Your task to perform on an android device: open sync settings in chrome Image 0: 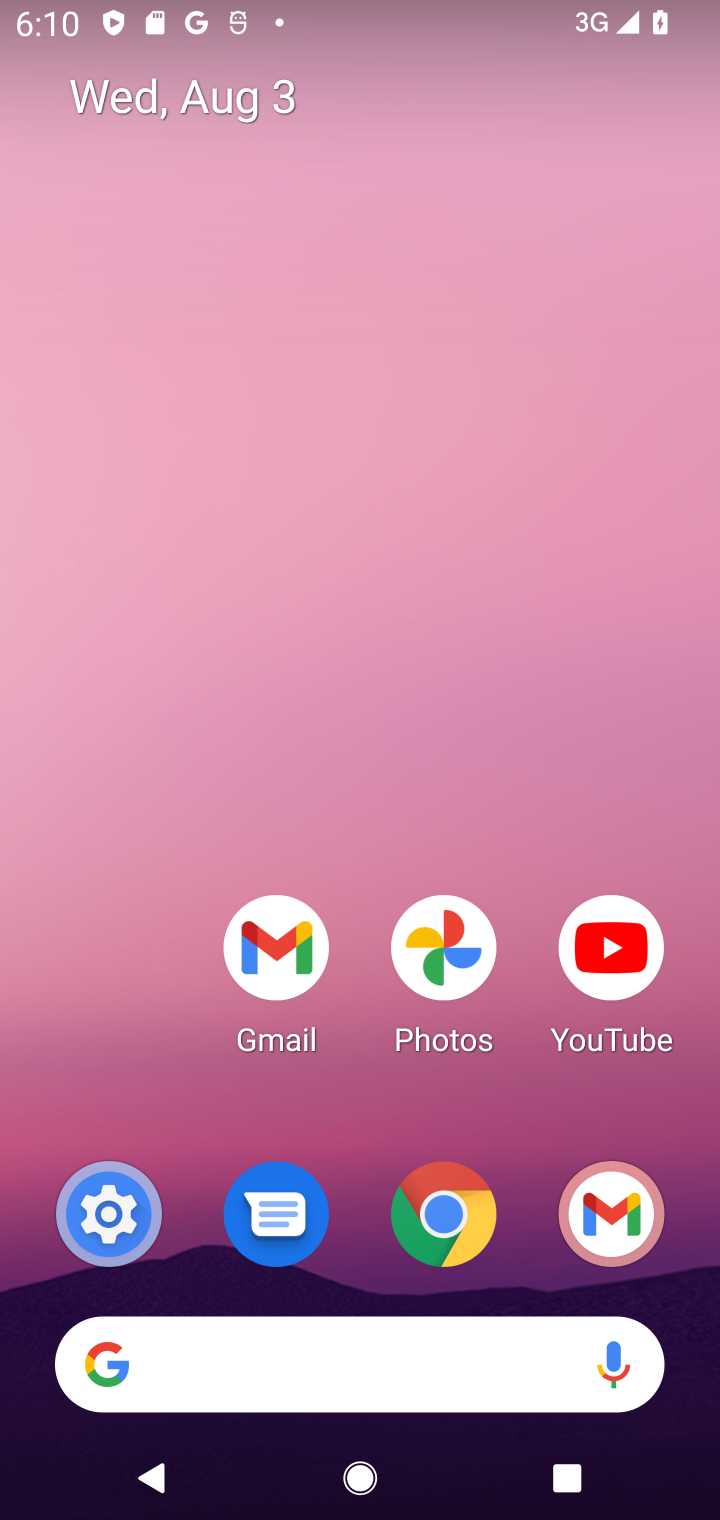
Step 0: click (439, 1221)
Your task to perform on an android device: open sync settings in chrome Image 1: 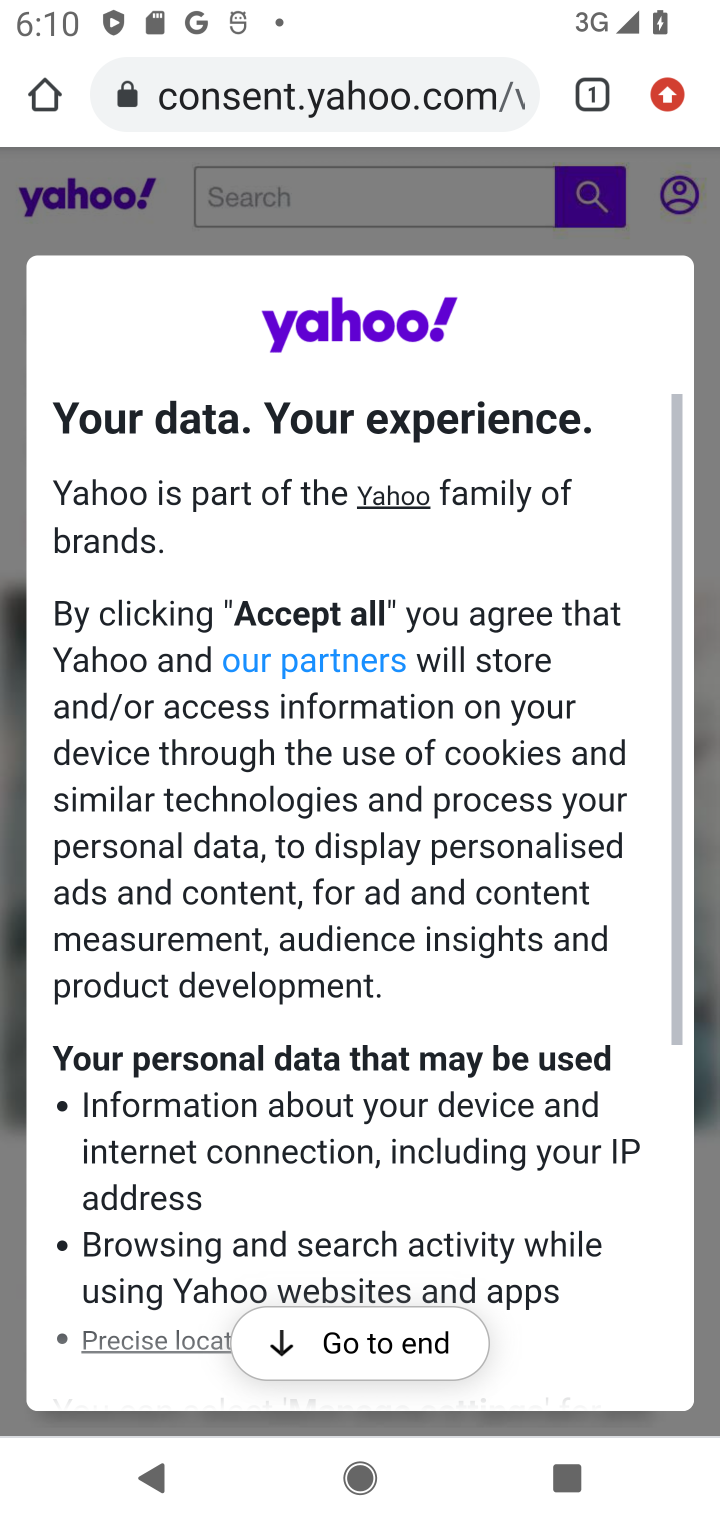
Step 1: click (667, 96)
Your task to perform on an android device: open sync settings in chrome Image 2: 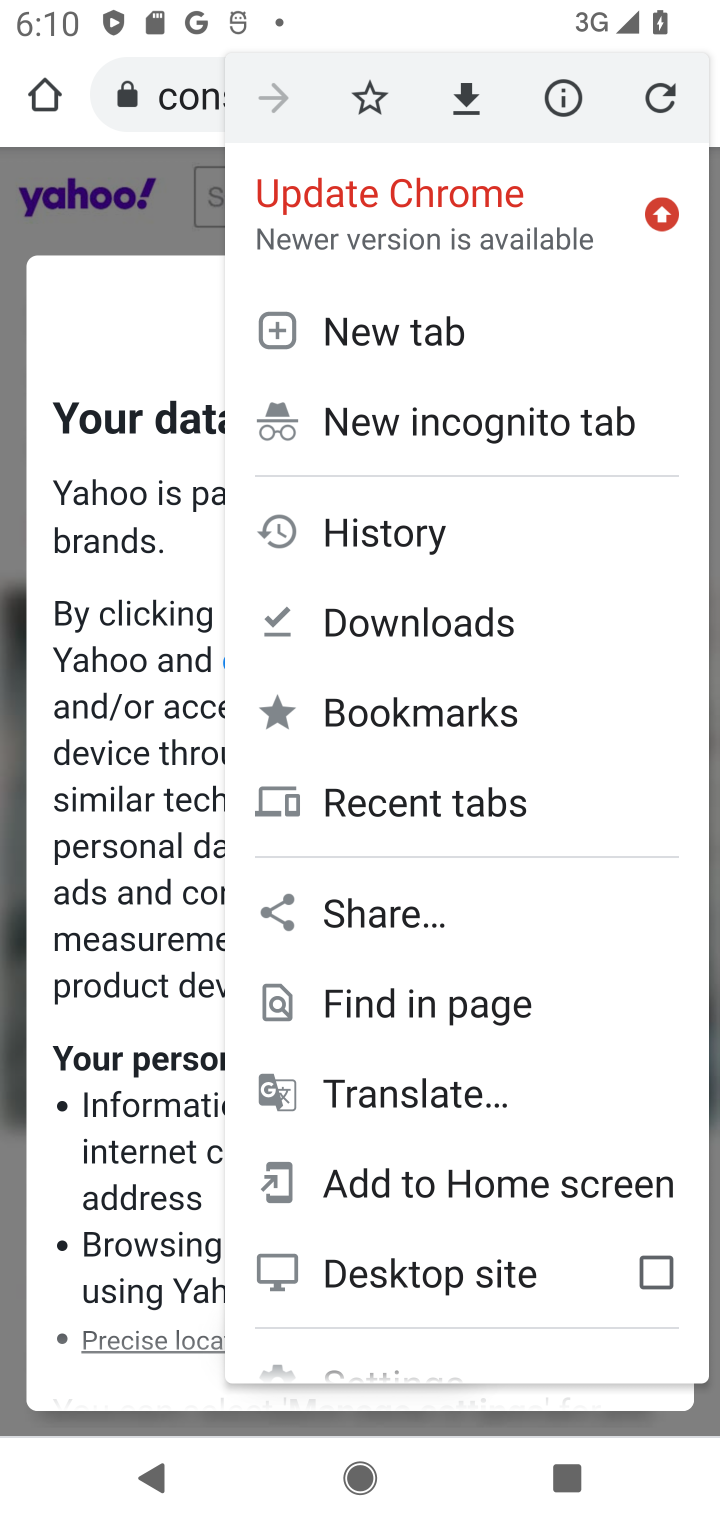
Step 2: drag from (348, 1252) to (340, 724)
Your task to perform on an android device: open sync settings in chrome Image 3: 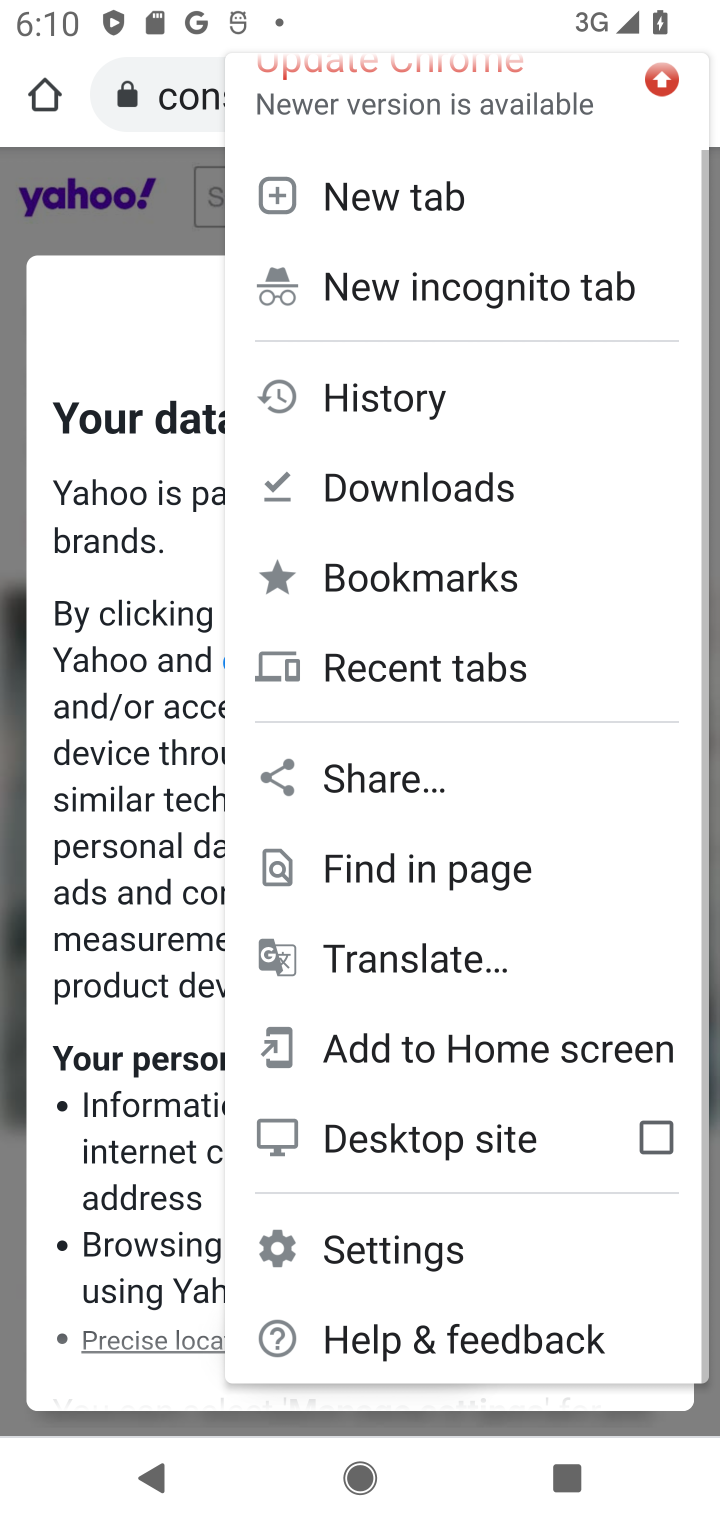
Step 3: click (340, 1270)
Your task to perform on an android device: open sync settings in chrome Image 4: 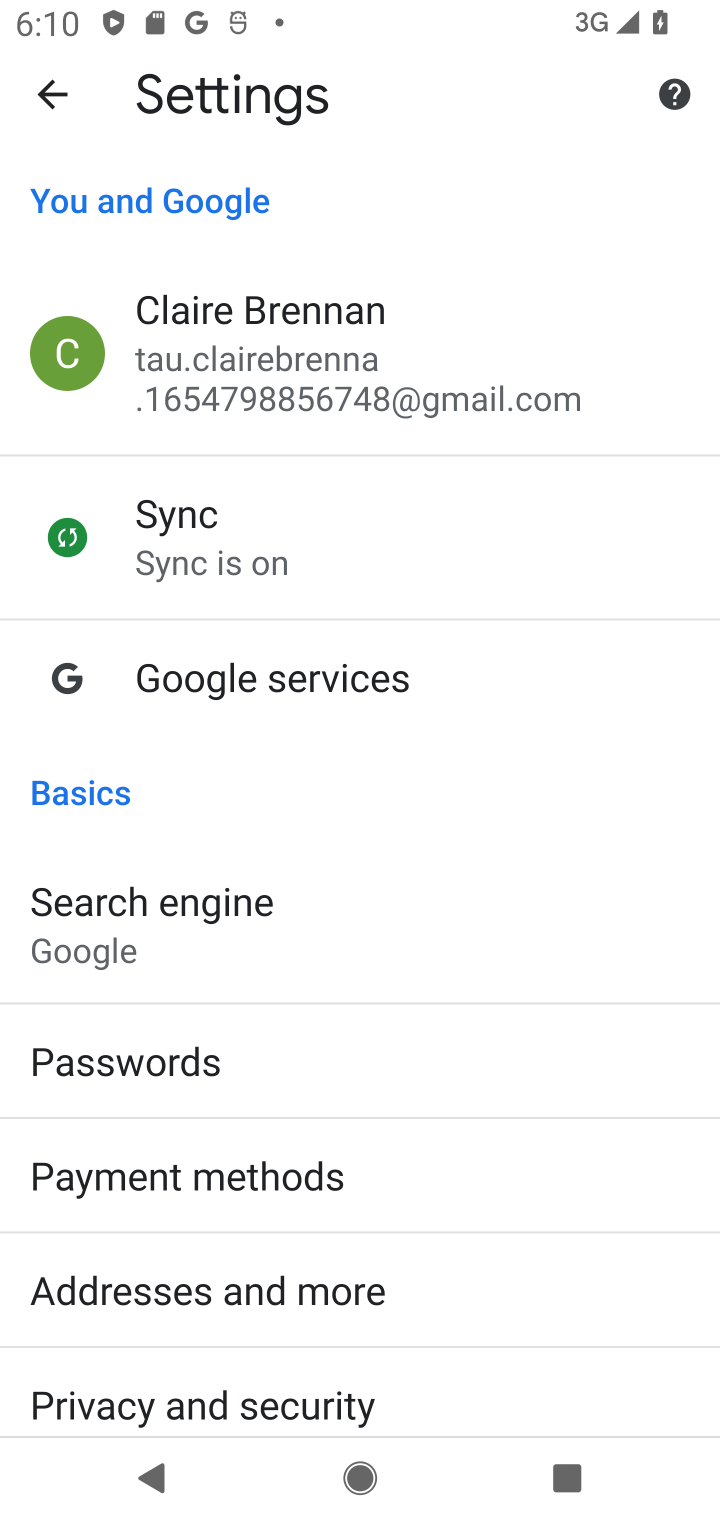
Step 4: click (236, 542)
Your task to perform on an android device: open sync settings in chrome Image 5: 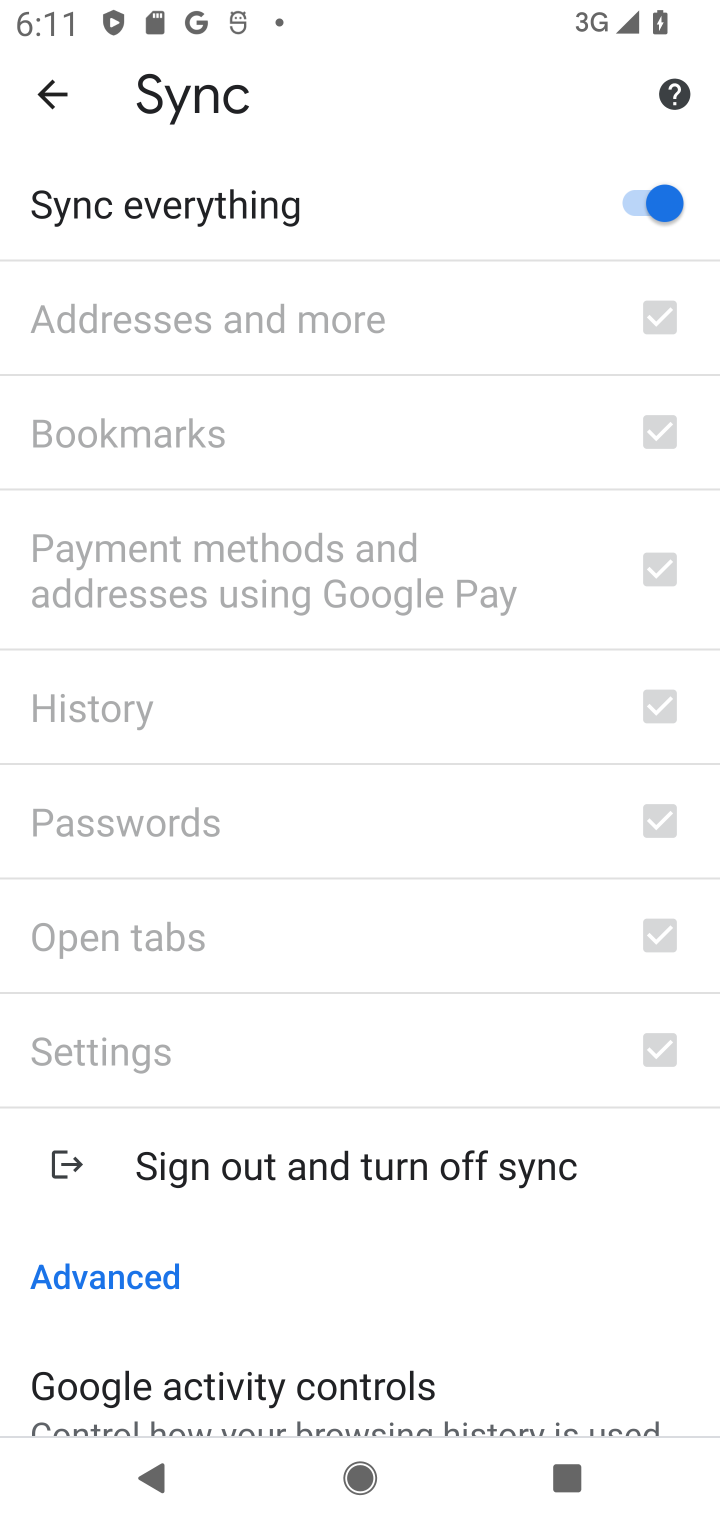
Step 5: task complete